Your task to perform on an android device: check google app version Image 0: 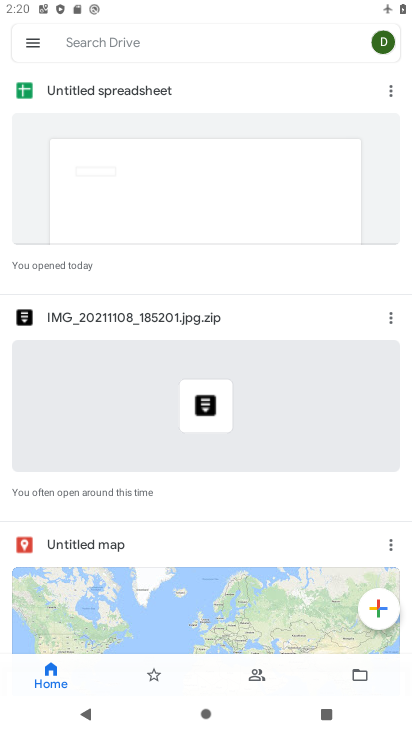
Step 0: press home button
Your task to perform on an android device: check google app version Image 1: 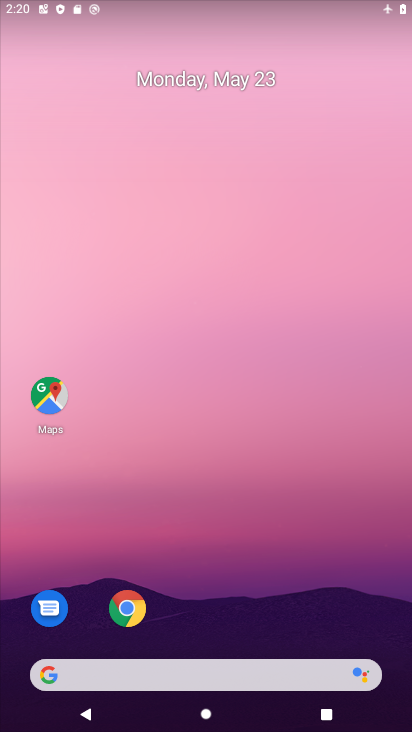
Step 1: drag from (222, 645) to (135, 5)
Your task to perform on an android device: check google app version Image 2: 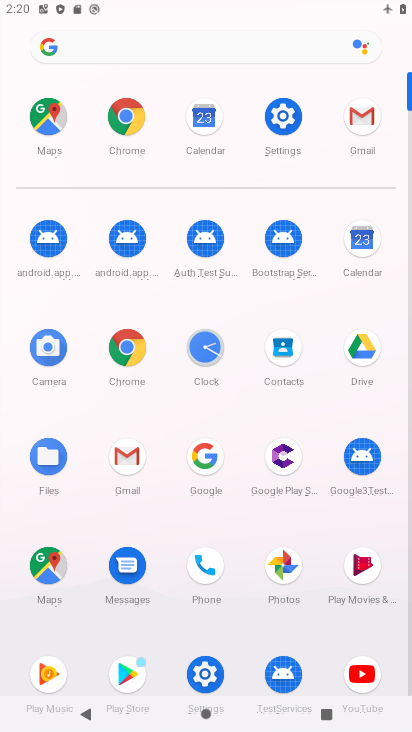
Step 2: click (197, 453)
Your task to perform on an android device: check google app version Image 3: 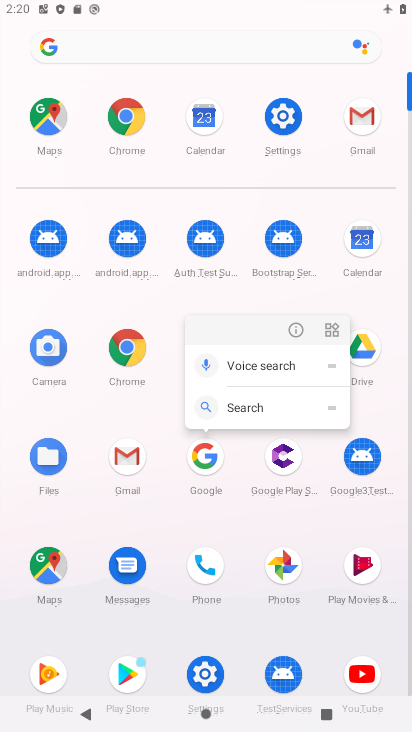
Step 3: click (289, 334)
Your task to perform on an android device: check google app version Image 4: 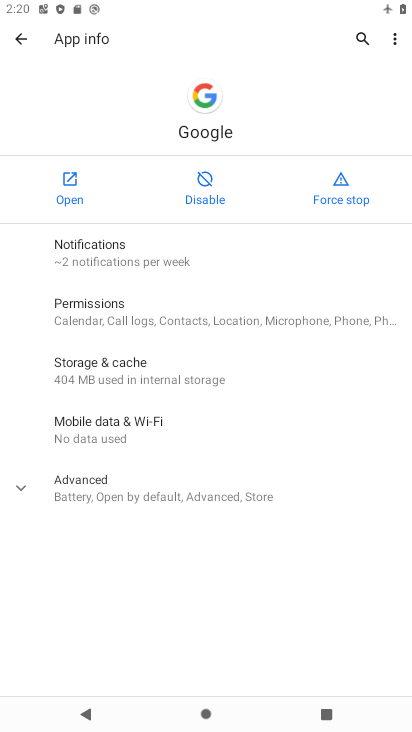
Step 4: click (67, 494)
Your task to perform on an android device: check google app version Image 5: 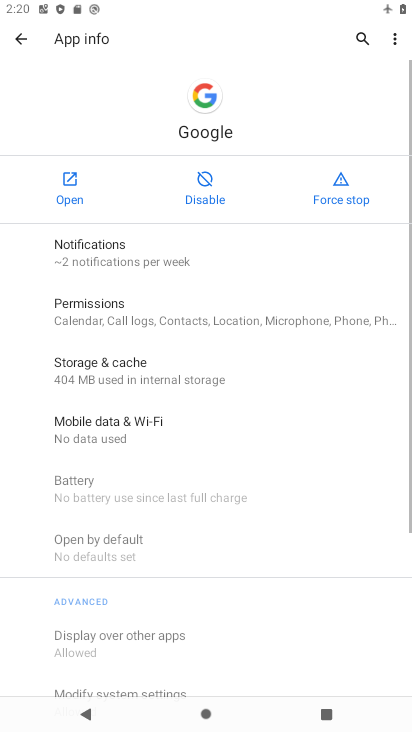
Step 5: task complete